Your task to perform on an android device: Go to notification settings Image 0: 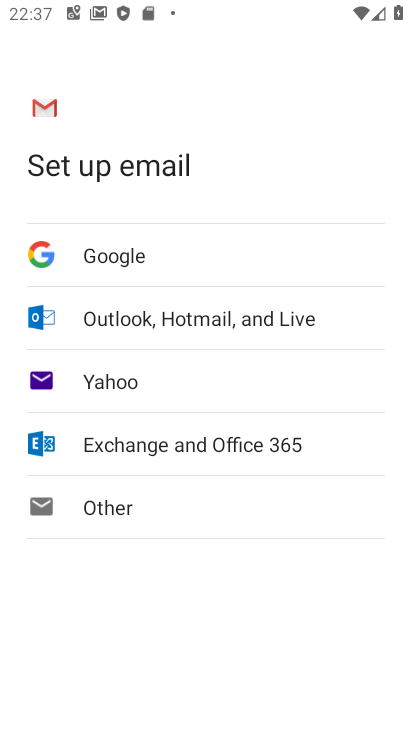
Step 0: press home button
Your task to perform on an android device: Go to notification settings Image 1: 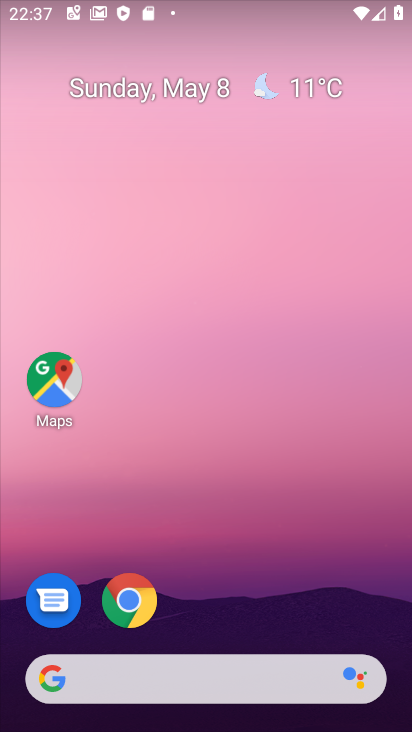
Step 1: drag from (190, 595) to (234, 69)
Your task to perform on an android device: Go to notification settings Image 2: 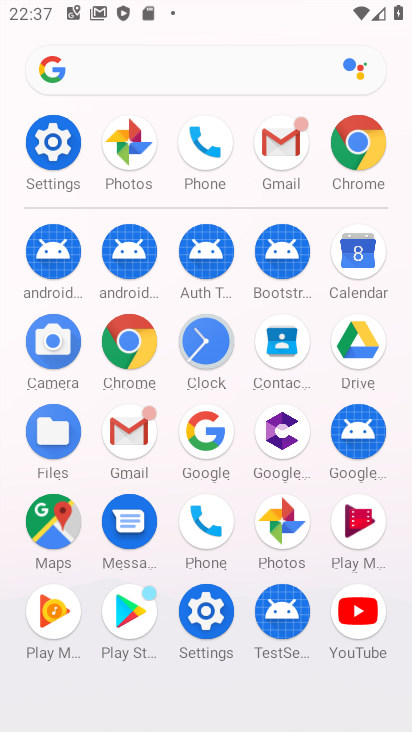
Step 2: click (59, 153)
Your task to perform on an android device: Go to notification settings Image 3: 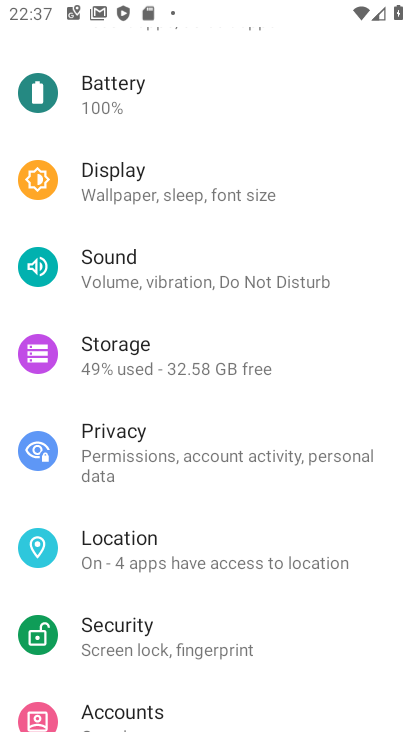
Step 3: drag from (195, 639) to (205, 114)
Your task to perform on an android device: Go to notification settings Image 4: 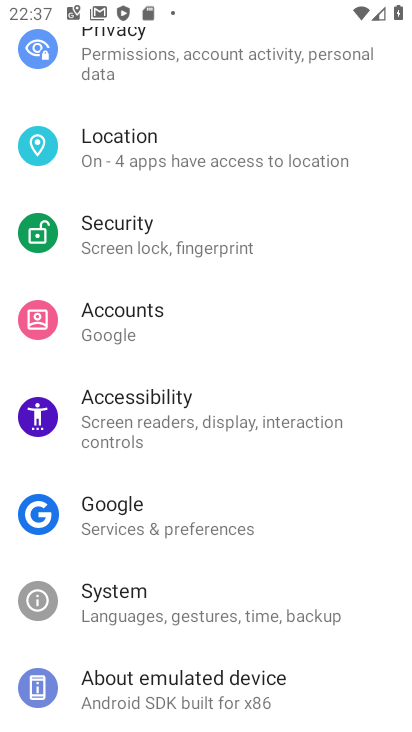
Step 4: drag from (233, 286) to (236, 692)
Your task to perform on an android device: Go to notification settings Image 5: 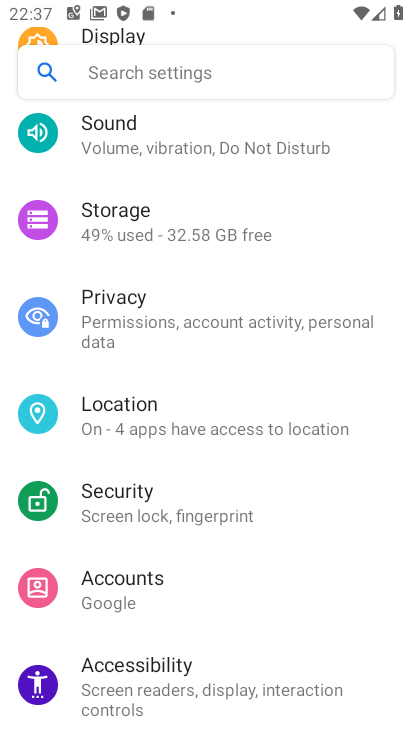
Step 5: drag from (227, 162) to (246, 639)
Your task to perform on an android device: Go to notification settings Image 6: 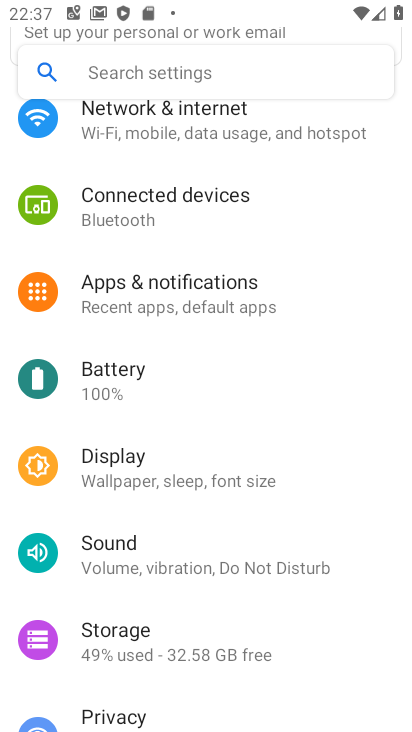
Step 6: click (163, 316)
Your task to perform on an android device: Go to notification settings Image 7: 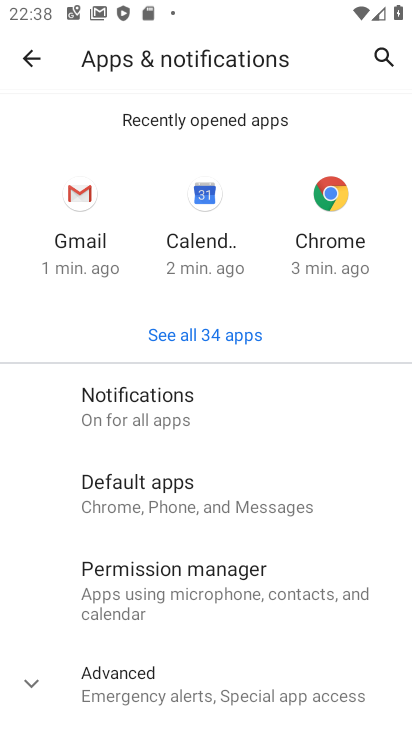
Step 7: task complete